Your task to perform on an android device: toggle data saver in the chrome app Image 0: 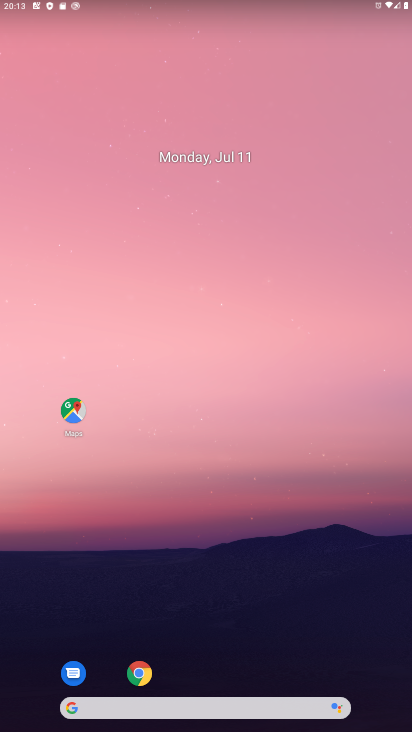
Step 0: click (139, 669)
Your task to perform on an android device: toggle data saver in the chrome app Image 1: 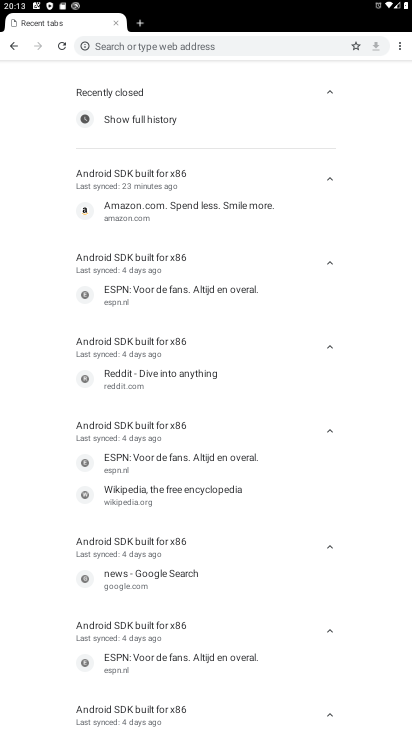
Step 1: click (399, 43)
Your task to perform on an android device: toggle data saver in the chrome app Image 2: 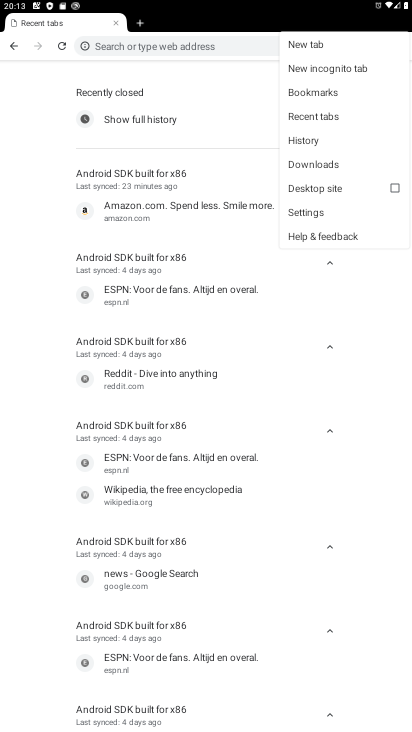
Step 2: click (328, 213)
Your task to perform on an android device: toggle data saver in the chrome app Image 3: 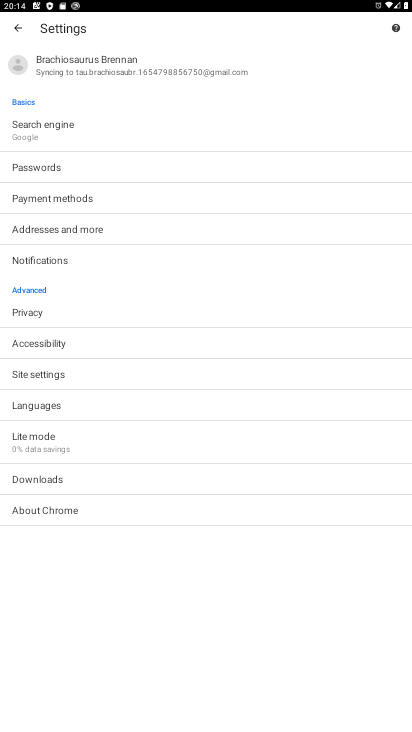
Step 3: click (72, 440)
Your task to perform on an android device: toggle data saver in the chrome app Image 4: 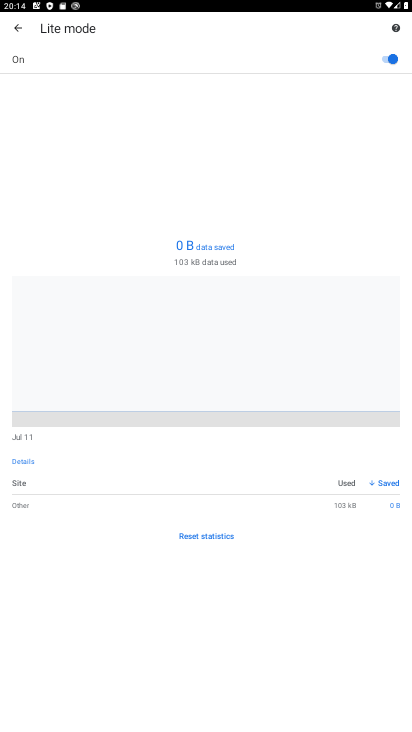
Step 4: task complete